Your task to perform on an android device: What's the weather today? Image 0: 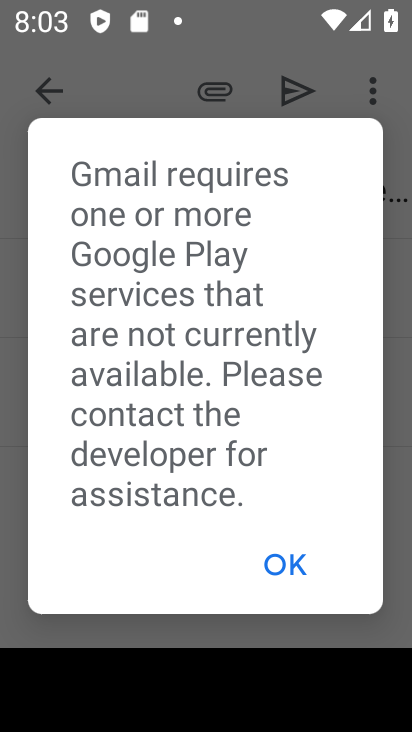
Step 0: click (282, 560)
Your task to perform on an android device: What's the weather today? Image 1: 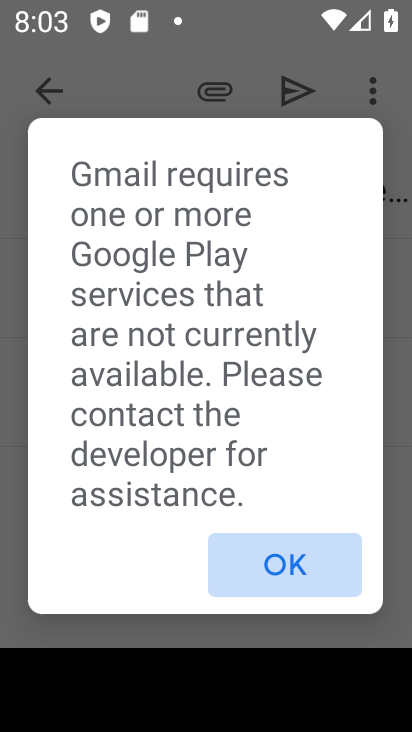
Step 1: click (282, 560)
Your task to perform on an android device: What's the weather today? Image 2: 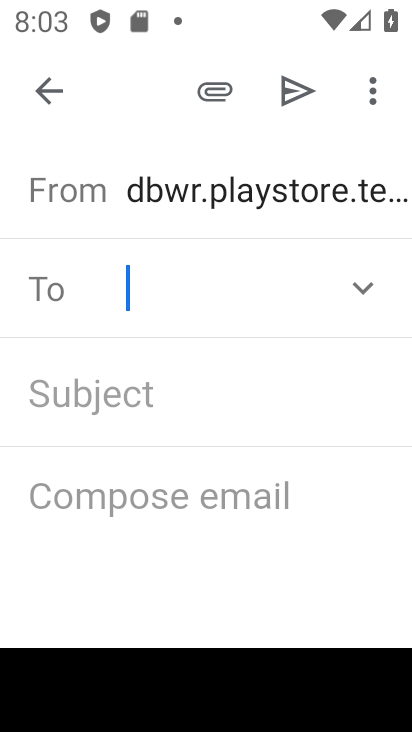
Step 2: click (282, 560)
Your task to perform on an android device: What's the weather today? Image 3: 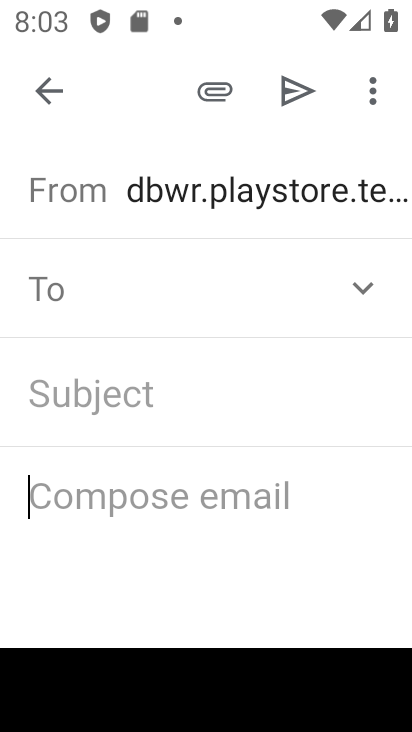
Step 3: press back button
Your task to perform on an android device: What's the weather today? Image 4: 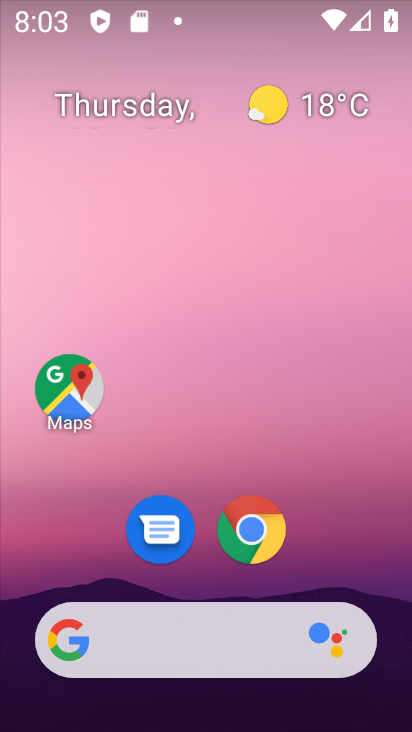
Step 4: drag from (395, 326) to (185, 723)
Your task to perform on an android device: What's the weather today? Image 5: 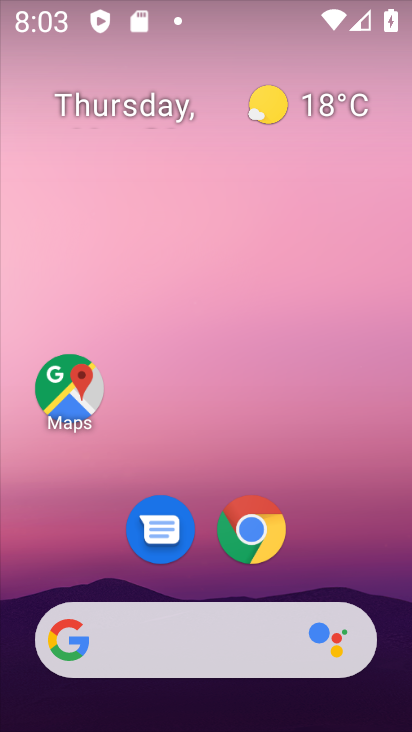
Step 5: drag from (314, 408) to (292, 720)
Your task to perform on an android device: What's the weather today? Image 6: 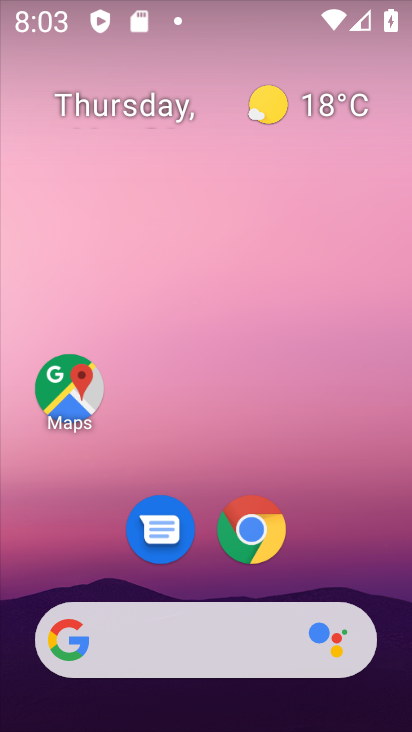
Step 6: drag from (14, 260) to (377, 522)
Your task to perform on an android device: What's the weather today? Image 7: 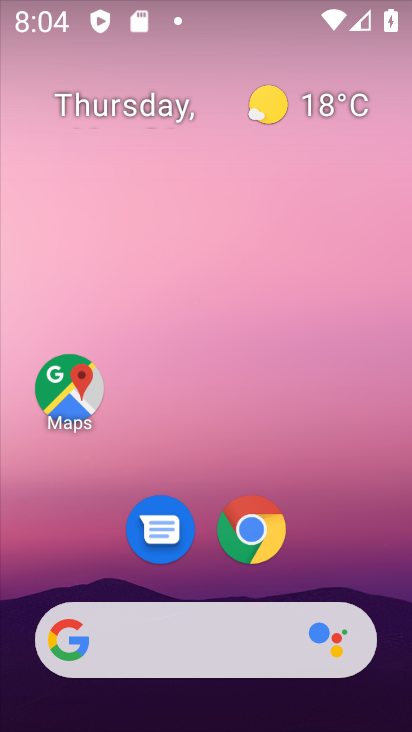
Step 7: click (385, 461)
Your task to perform on an android device: What's the weather today? Image 8: 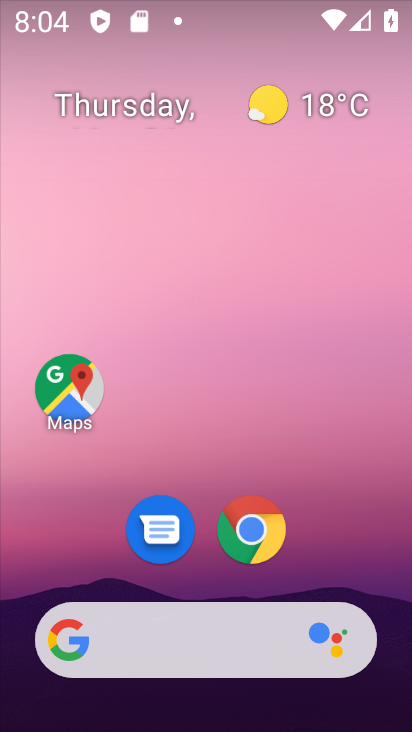
Step 8: click (309, 493)
Your task to perform on an android device: What's the weather today? Image 9: 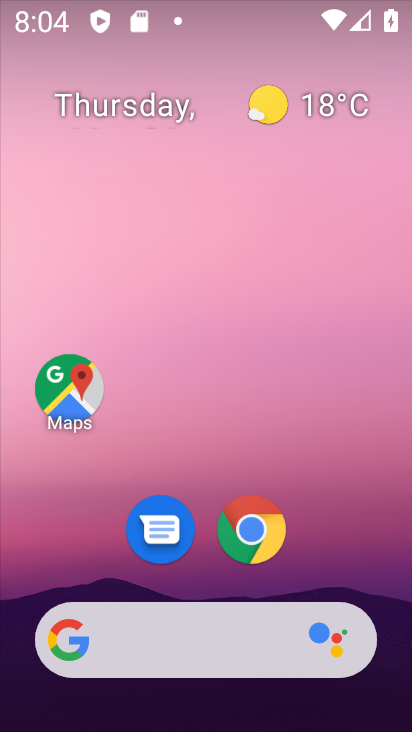
Step 9: drag from (18, 234) to (351, 419)
Your task to perform on an android device: What's the weather today? Image 10: 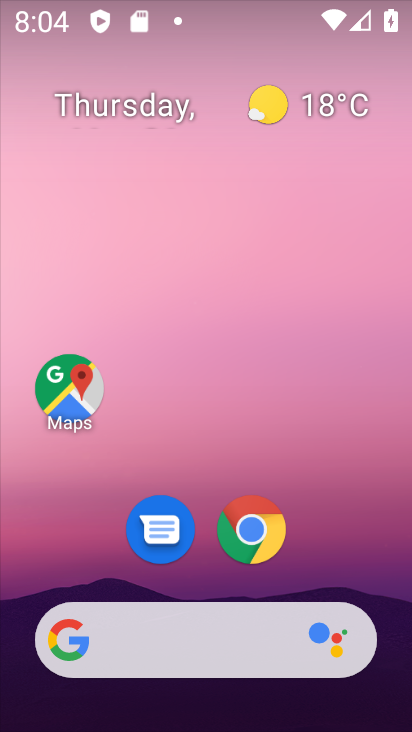
Step 10: drag from (348, 432) to (353, 511)
Your task to perform on an android device: What's the weather today? Image 11: 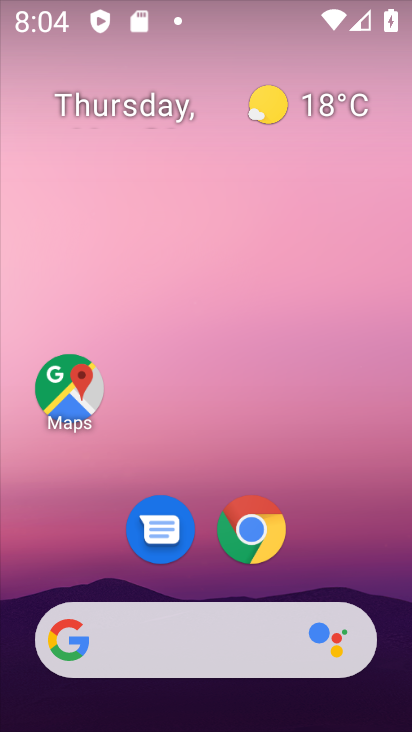
Step 11: drag from (215, 449) to (99, 401)
Your task to perform on an android device: What's the weather today? Image 12: 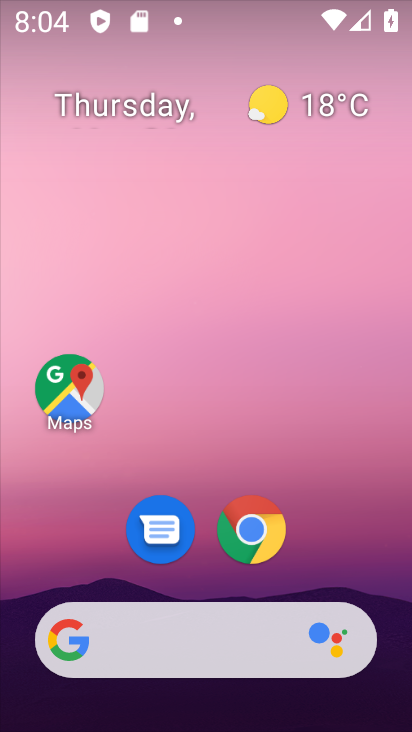
Step 12: drag from (17, 260) to (382, 424)
Your task to perform on an android device: What's the weather today? Image 13: 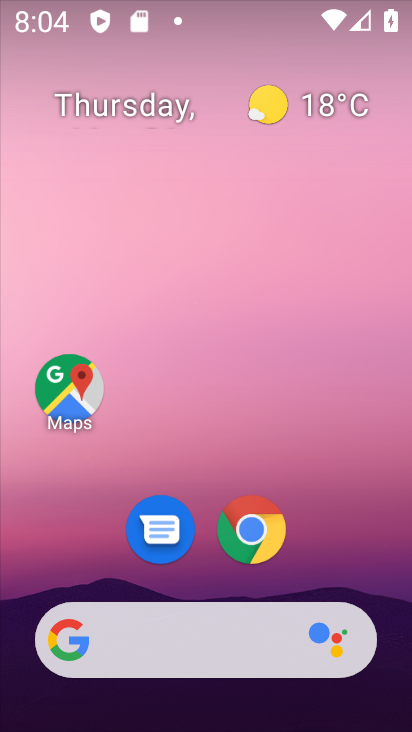
Step 13: drag from (23, 189) to (348, 432)
Your task to perform on an android device: What's the weather today? Image 14: 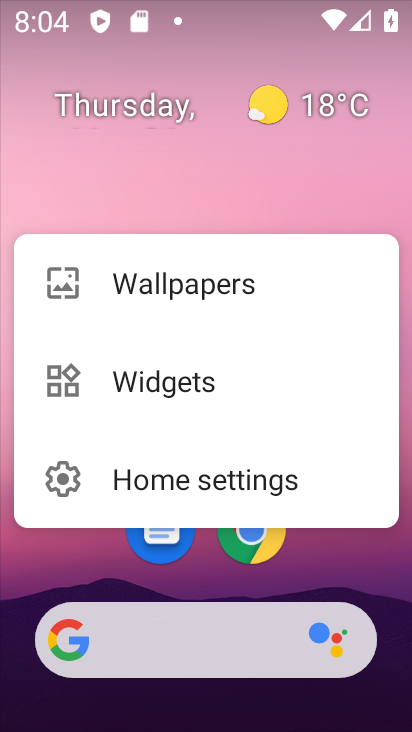
Step 14: click (107, 232)
Your task to perform on an android device: What's the weather today? Image 15: 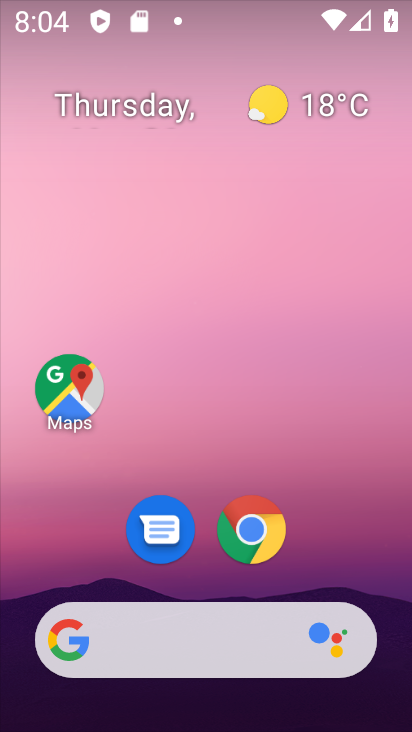
Step 15: drag from (31, 260) to (408, 456)
Your task to perform on an android device: What's the weather today? Image 16: 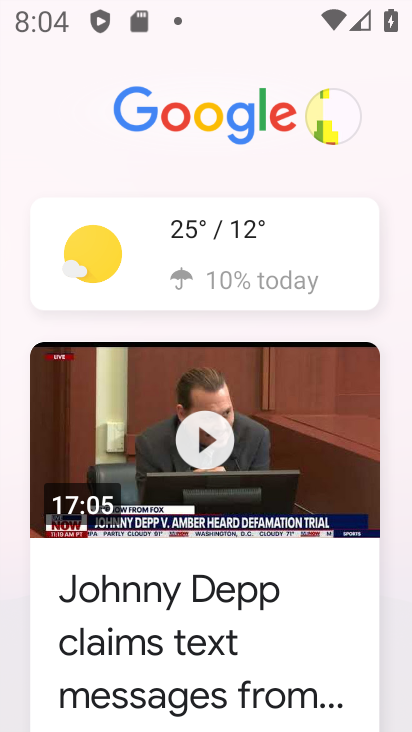
Step 16: drag from (30, 246) to (351, 525)
Your task to perform on an android device: What's the weather today? Image 17: 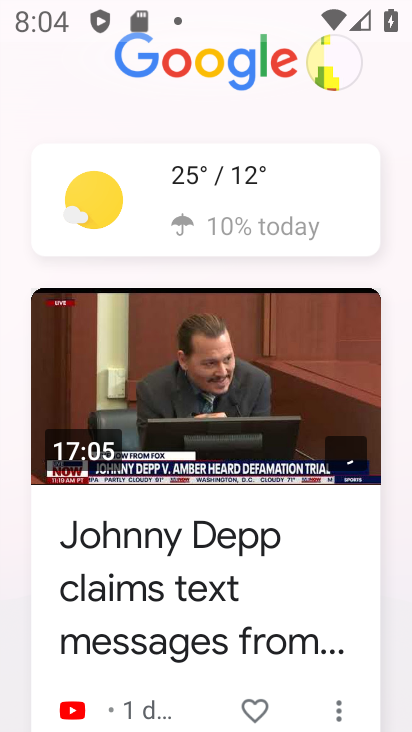
Step 17: click (167, 199)
Your task to perform on an android device: What's the weather today? Image 18: 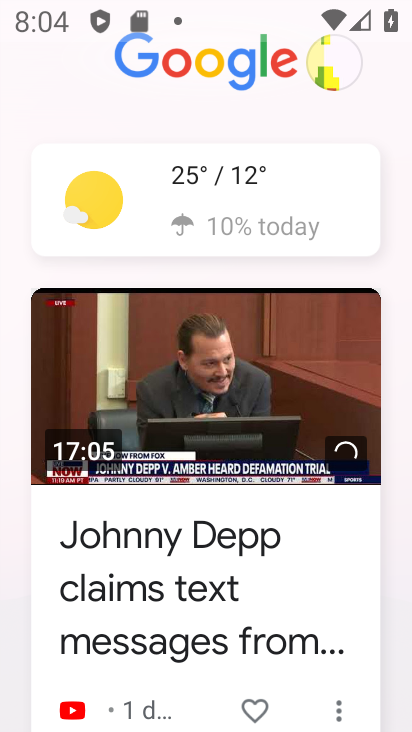
Step 18: click (167, 199)
Your task to perform on an android device: What's the weather today? Image 19: 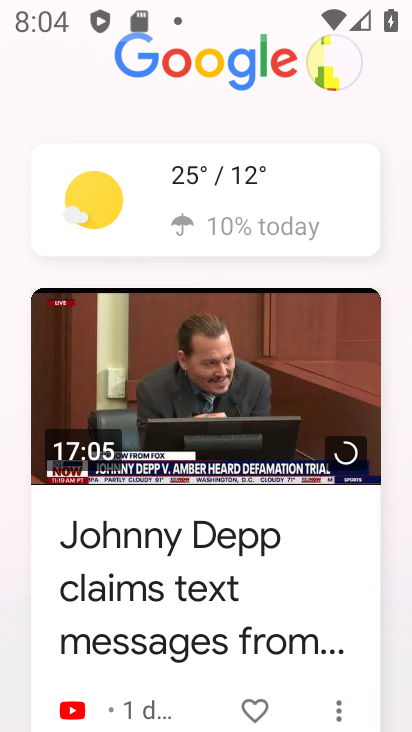
Step 19: click (168, 199)
Your task to perform on an android device: What's the weather today? Image 20: 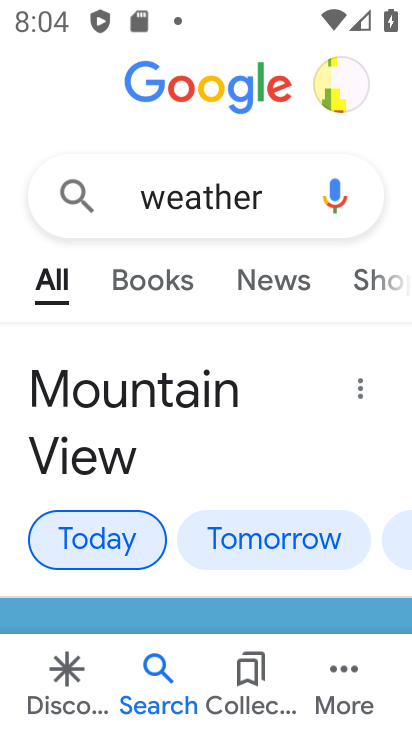
Step 20: task complete